Your task to perform on an android device: clear all cookies in the chrome app Image 0: 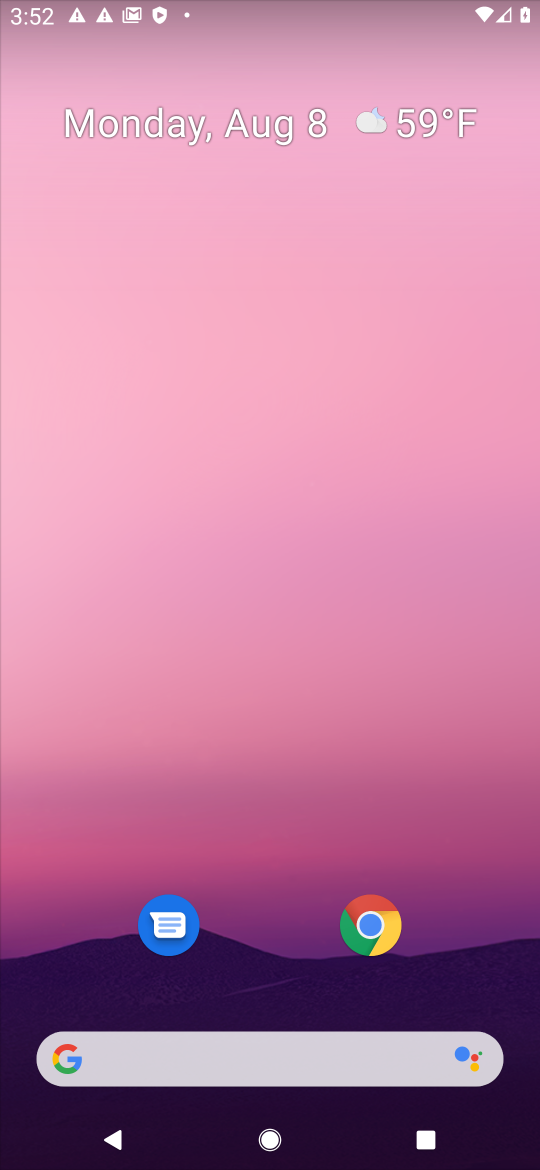
Step 0: drag from (260, 989) to (261, 74)
Your task to perform on an android device: clear all cookies in the chrome app Image 1: 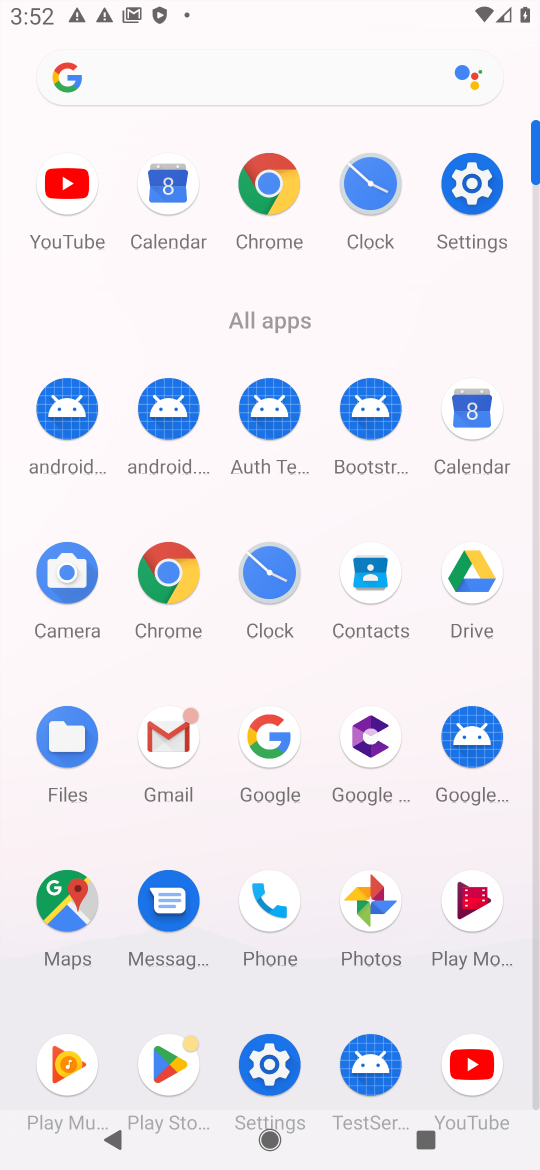
Step 1: click (166, 564)
Your task to perform on an android device: clear all cookies in the chrome app Image 2: 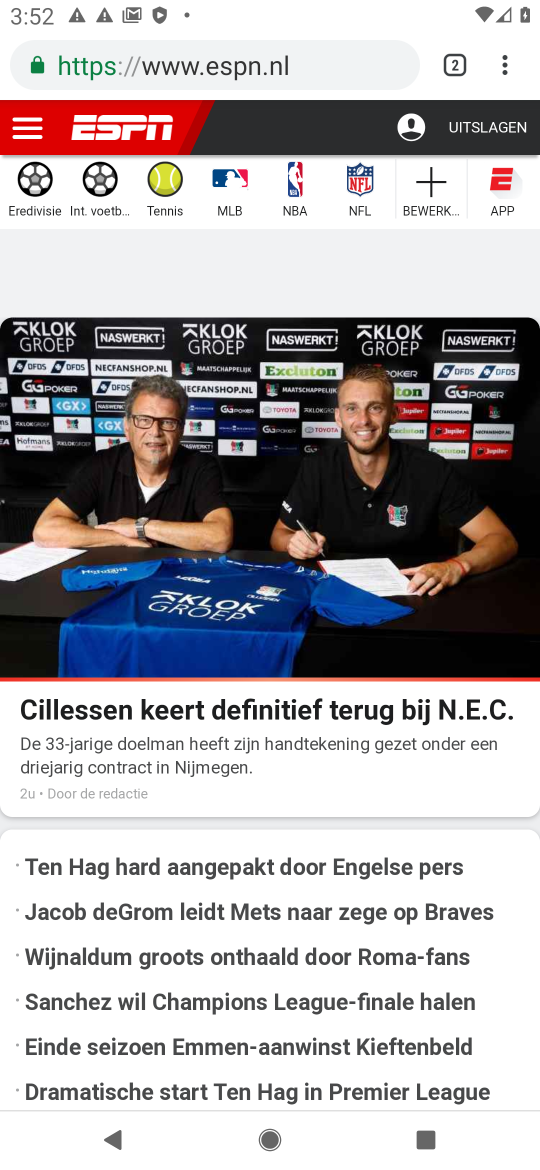
Step 2: click (505, 74)
Your task to perform on an android device: clear all cookies in the chrome app Image 3: 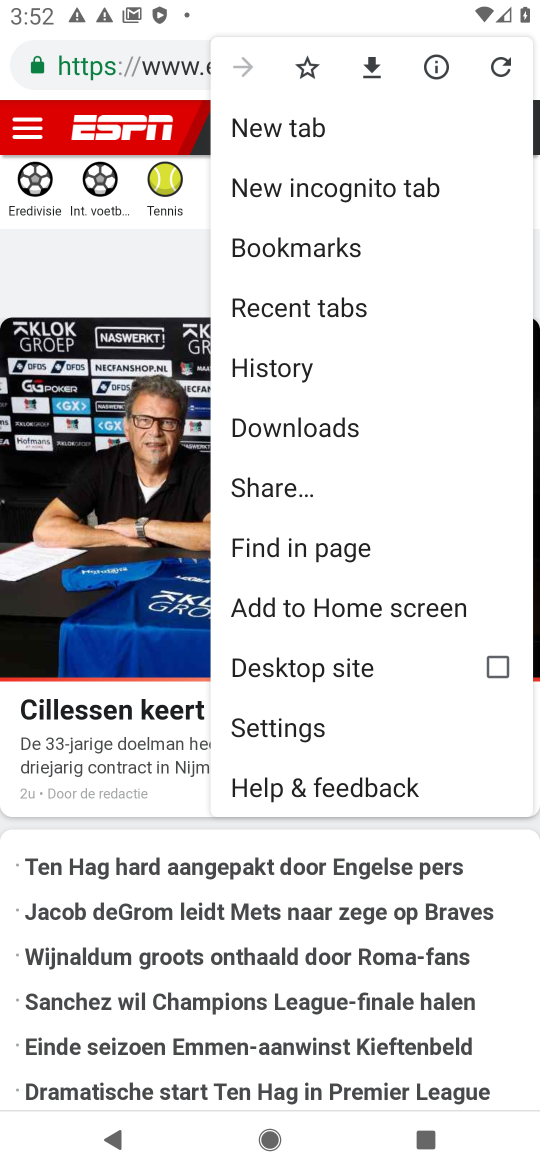
Step 3: click (264, 369)
Your task to perform on an android device: clear all cookies in the chrome app Image 4: 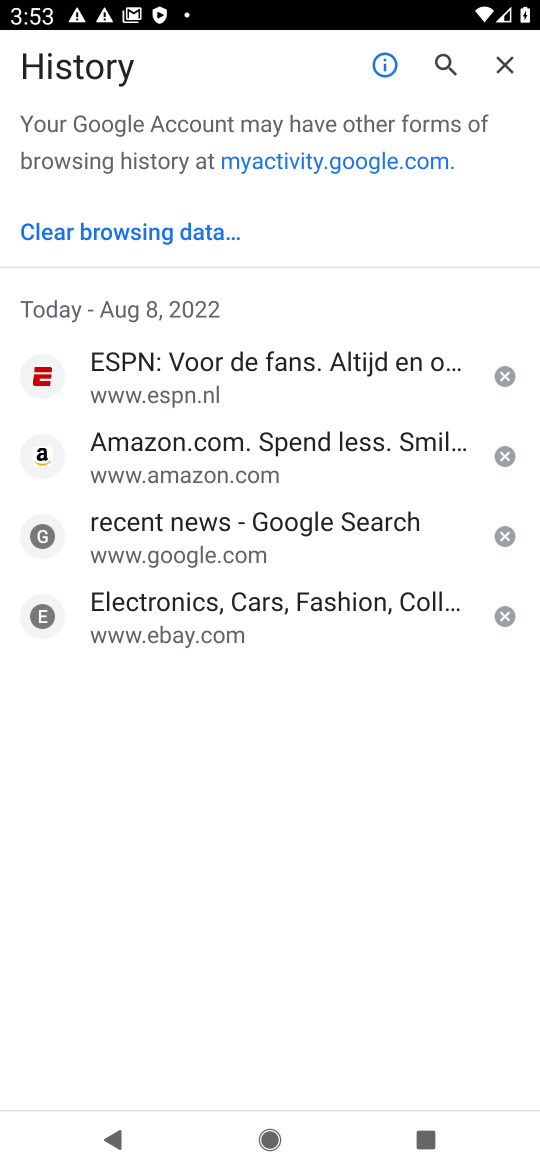
Step 4: click (154, 229)
Your task to perform on an android device: clear all cookies in the chrome app Image 5: 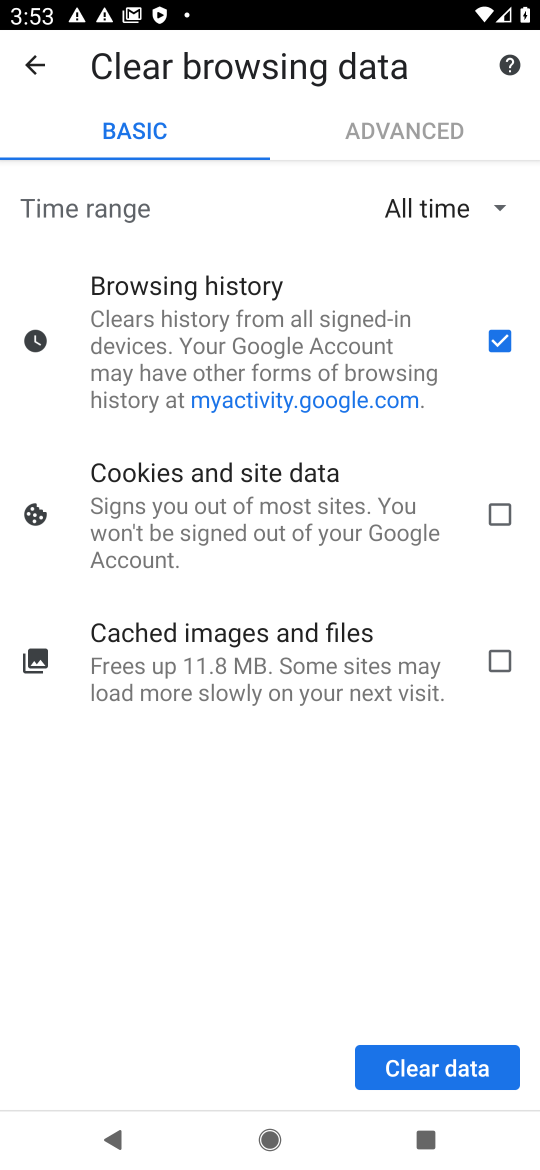
Step 5: click (501, 335)
Your task to perform on an android device: clear all cookies in the chrome app Image 6: 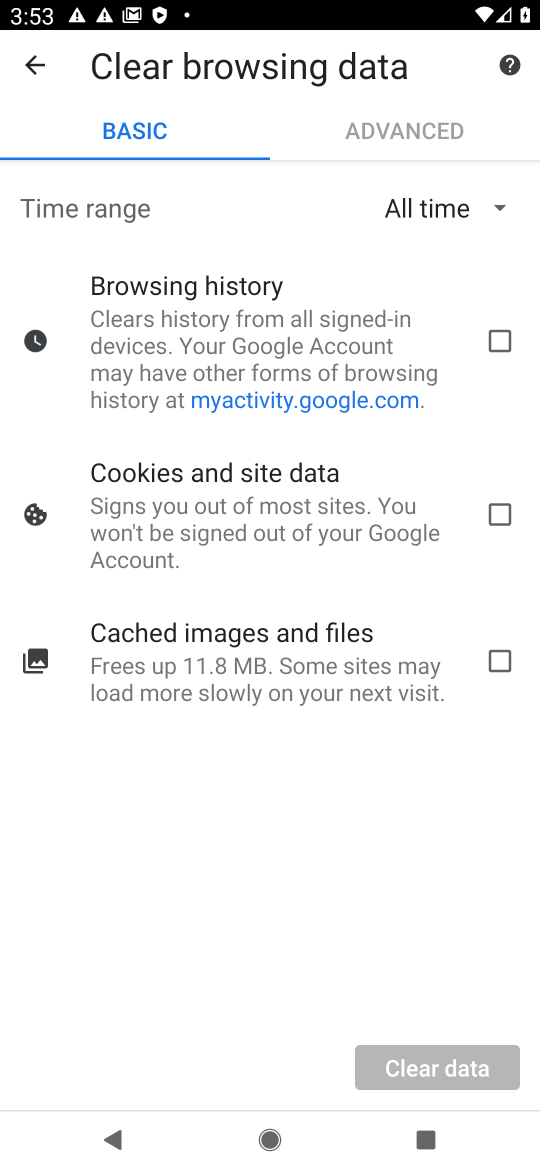
Step 6: click (502, 511)
Your task to perform on an android device: clear all cookies in the chrome app Image 7: 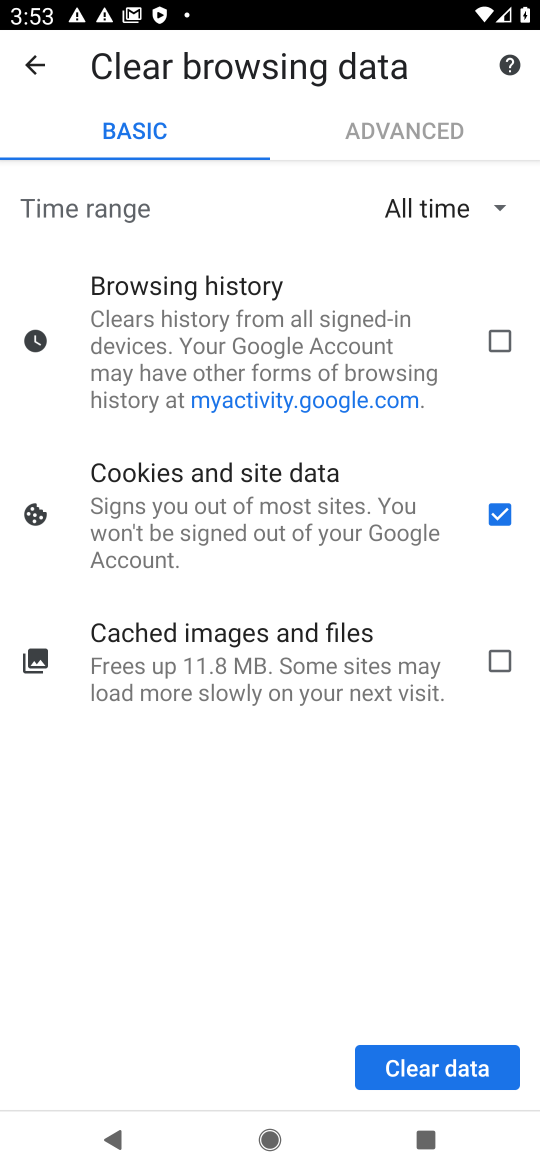
Step 7: click (420, 1080)
Your task to perform on an android device: clear all cookies in the chrome app Image 8: 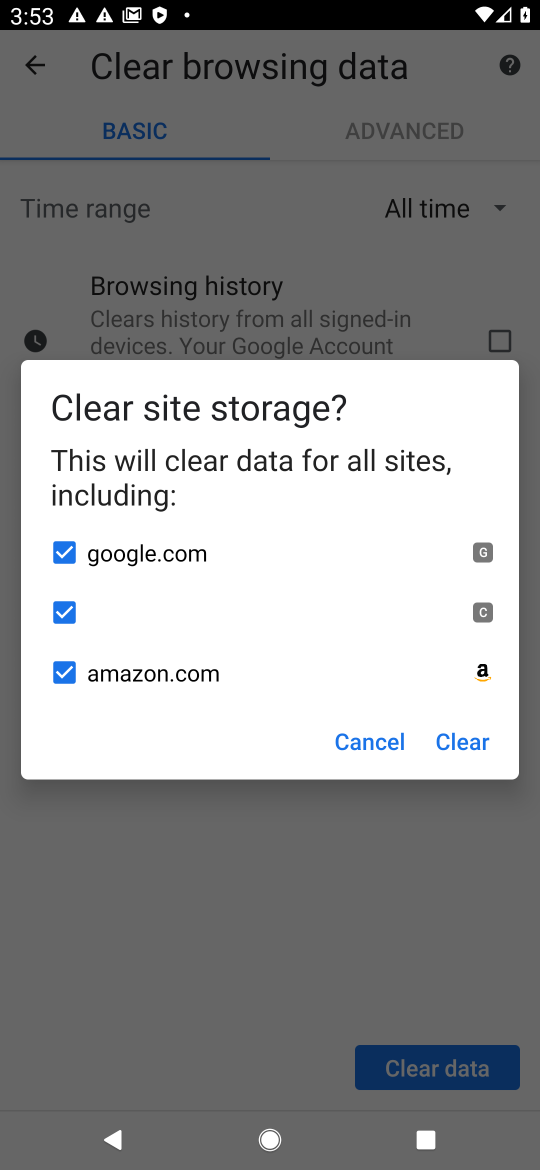
Step 8: click (456, 737)
Your task to perform on an android device: clear all cookies in the chrome app Image 9: 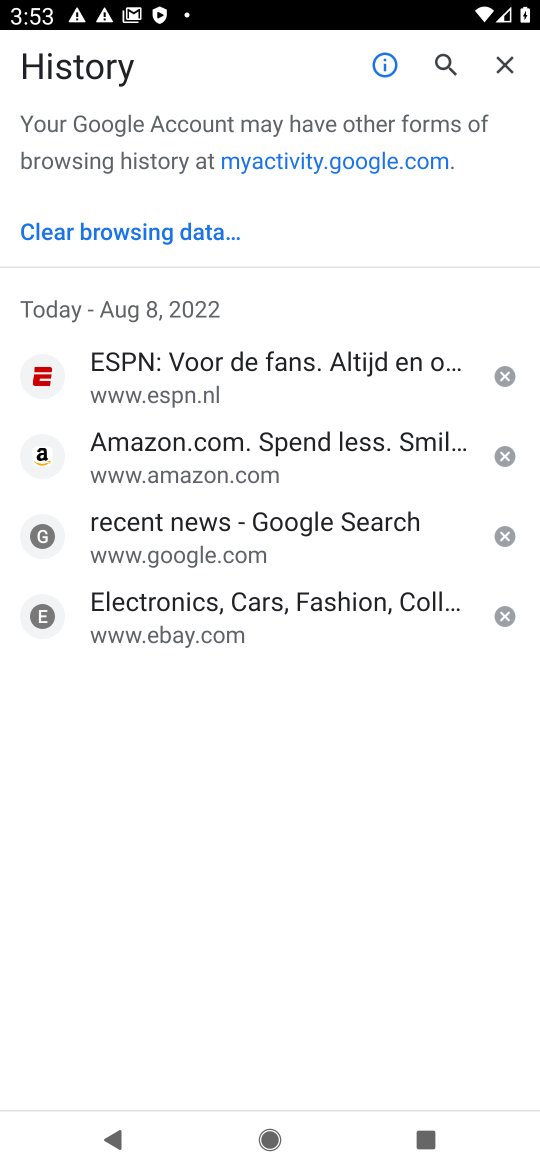
Step 9: task complete